Your task to perform on an android device: empty trash in the gmail app Image 0: 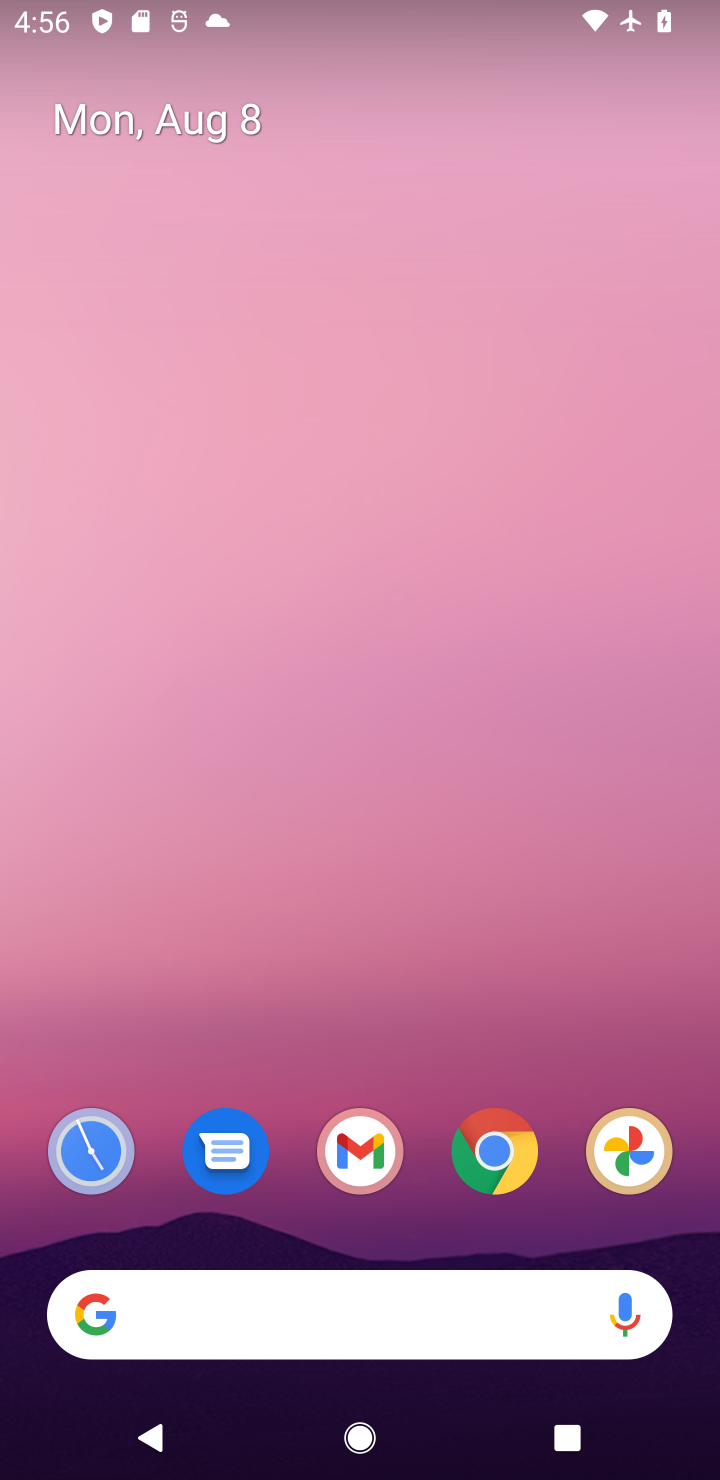
Step 0: click (372, 1152)
Your task to perform on an android device: empty trash in the gmail app Image 1: 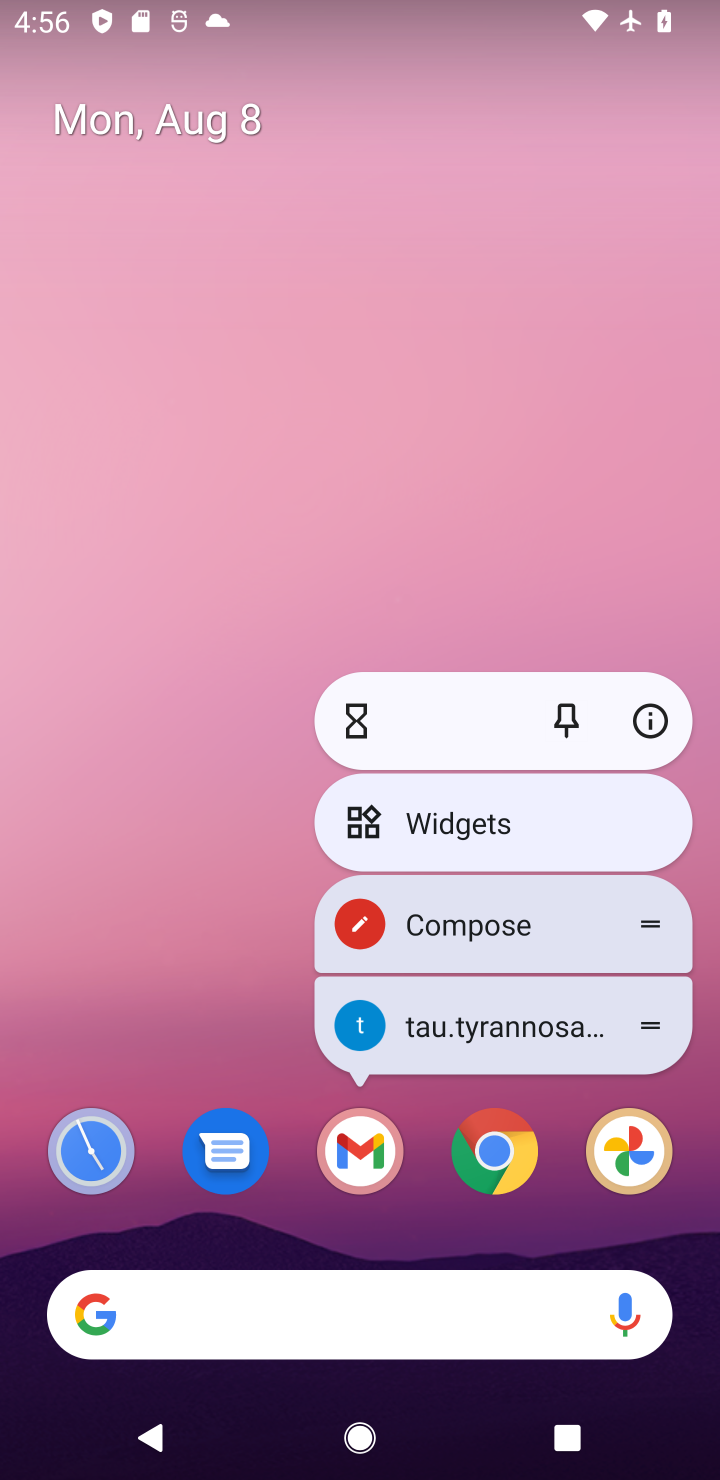
Step 1: click (348, 1151)
Your task to perform on an android device: empty trash in the gmail app Image 2: 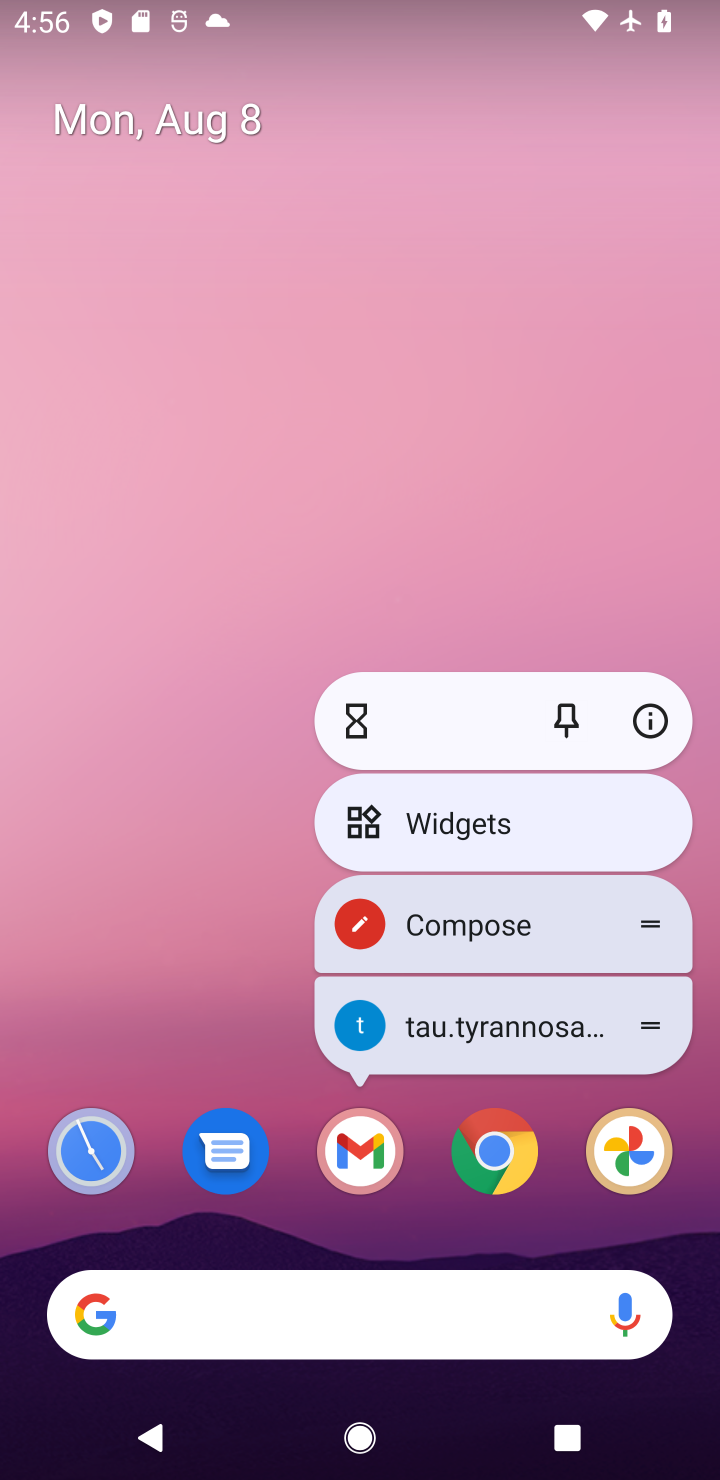
Step 2: click (348, 1151)
Your task to perform on an android device: empty trash in the gmail app Image 3: 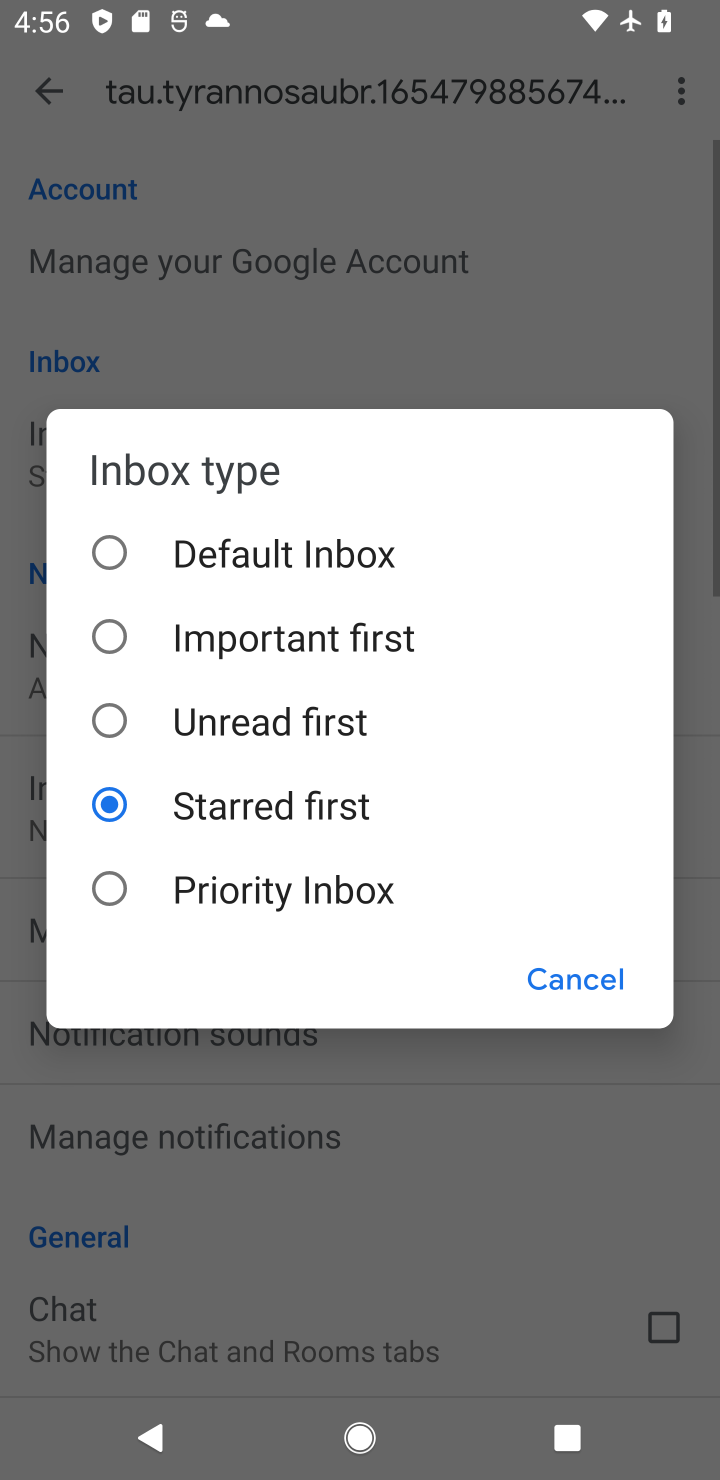
Step 3: click (550, 1014)
Your task to perform on an android device: empty trash in the gmail app Image 4: 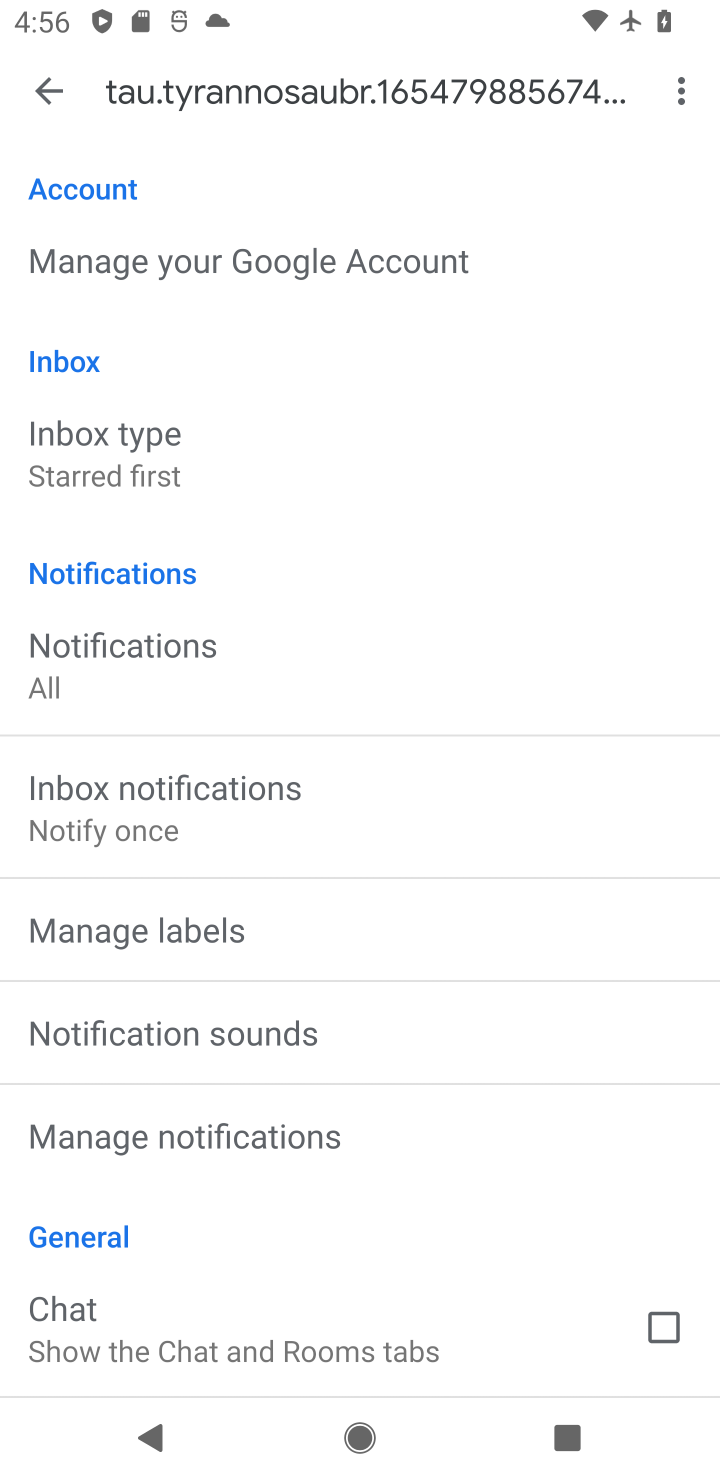
Step 4: click (52, 79)
Your task to perform on an android device: empty trash in the gmail app Image 5: 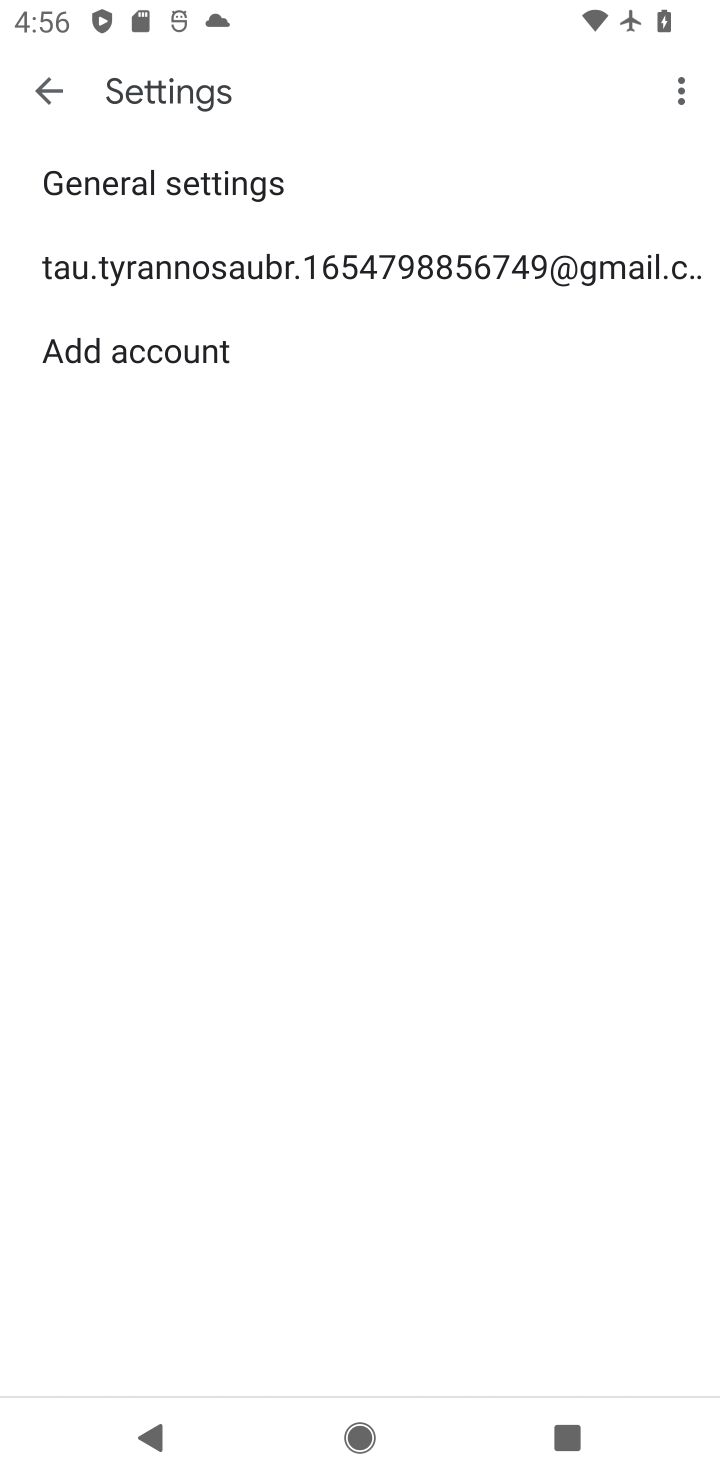
Step 5: click (52, 79)
Your task to perform on an android device: empty trash in the gmail app Image 6: 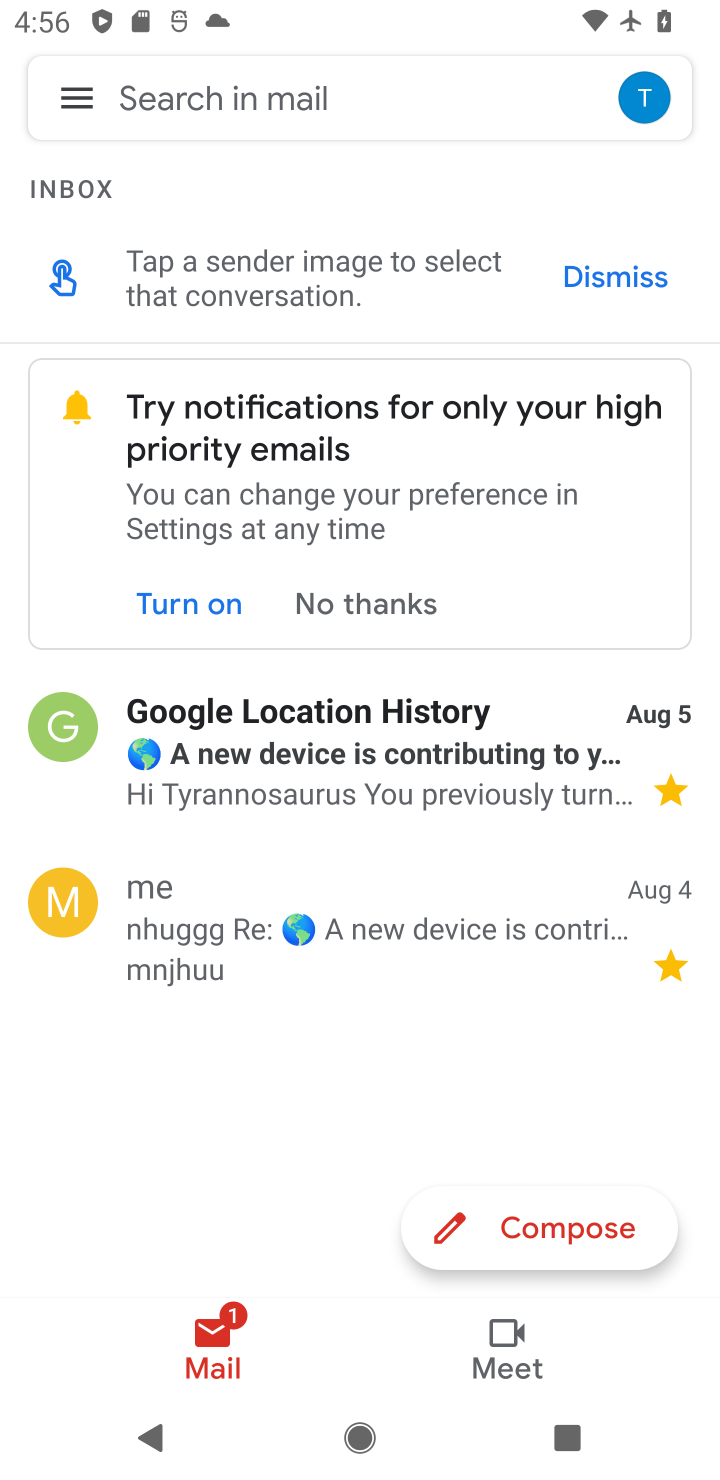
Step 6: click (66, 86)
Your task to perform on an android device: empty trash in the gmail app Image 7: 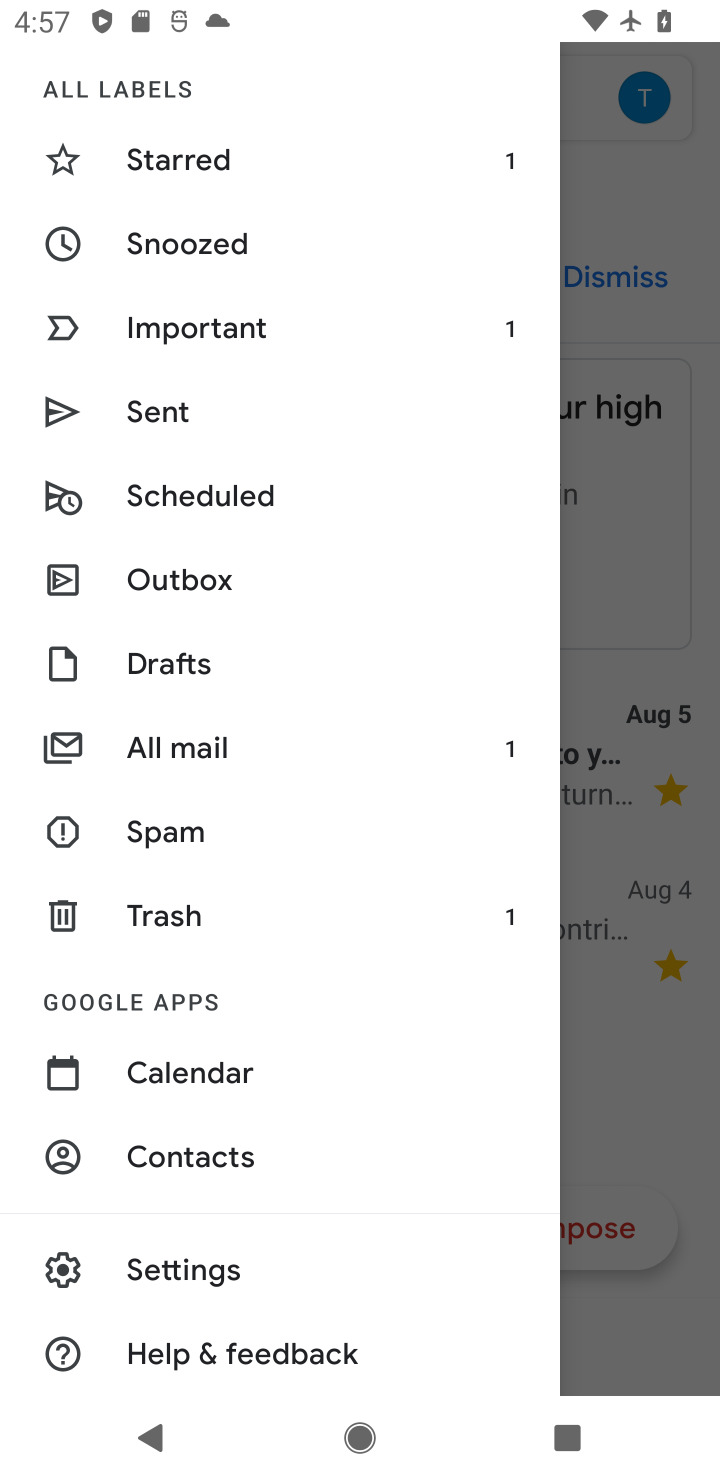
Step 7: click (163, 941)
Your task to perform on an android device: empty trash in the gmail app Image 8: 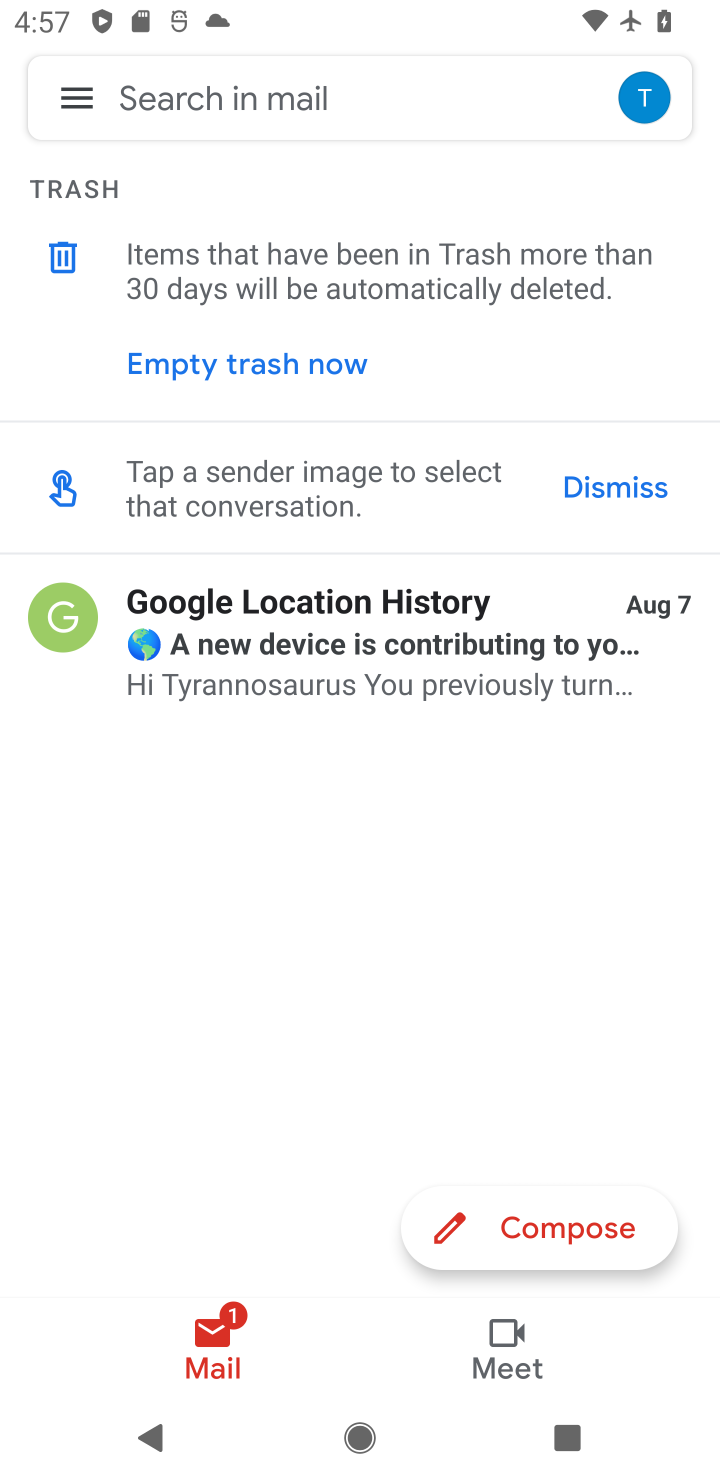
Step 8: click (295, 354)
Your task to perform on an android device: empty trash in the gmail app Image 9: 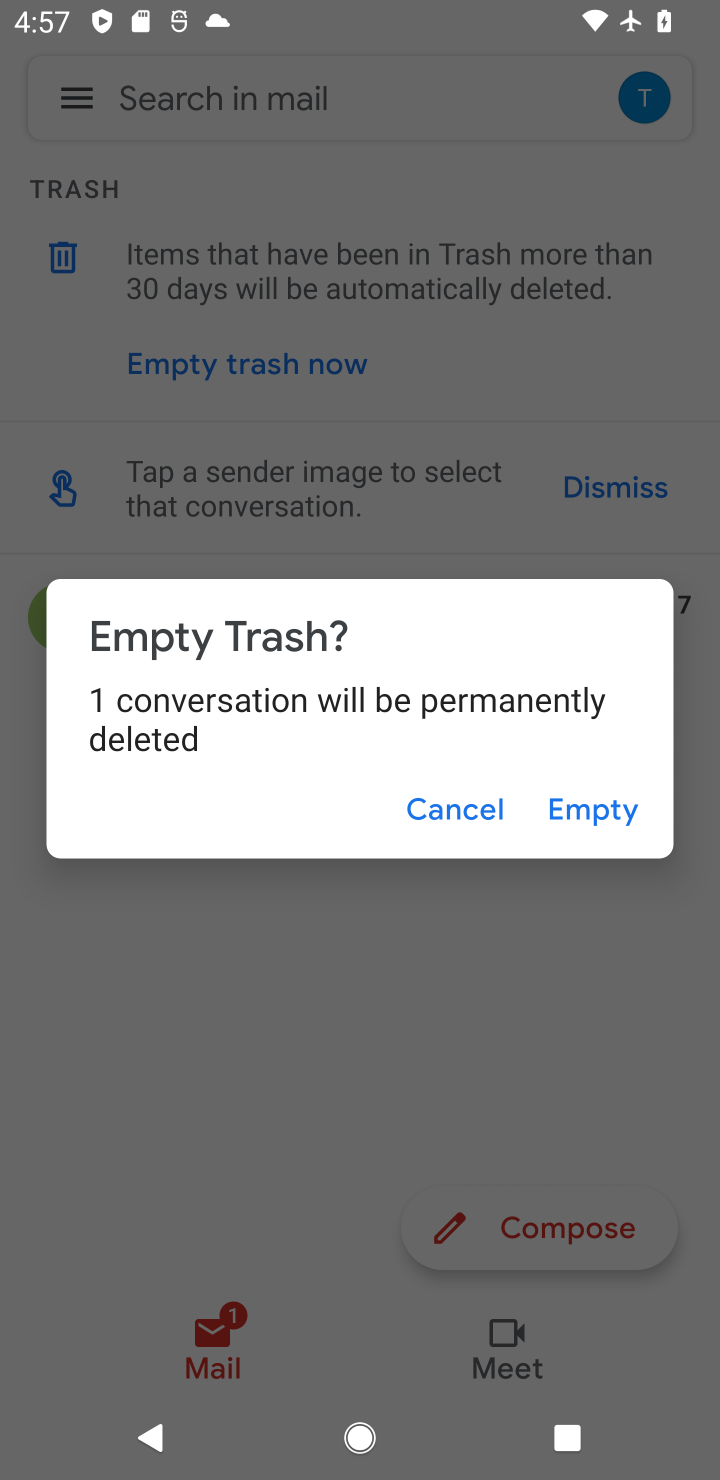
Step 9: click (600, 830)
Your task to perform on an android device: empty trash in the gmail app Image 10: 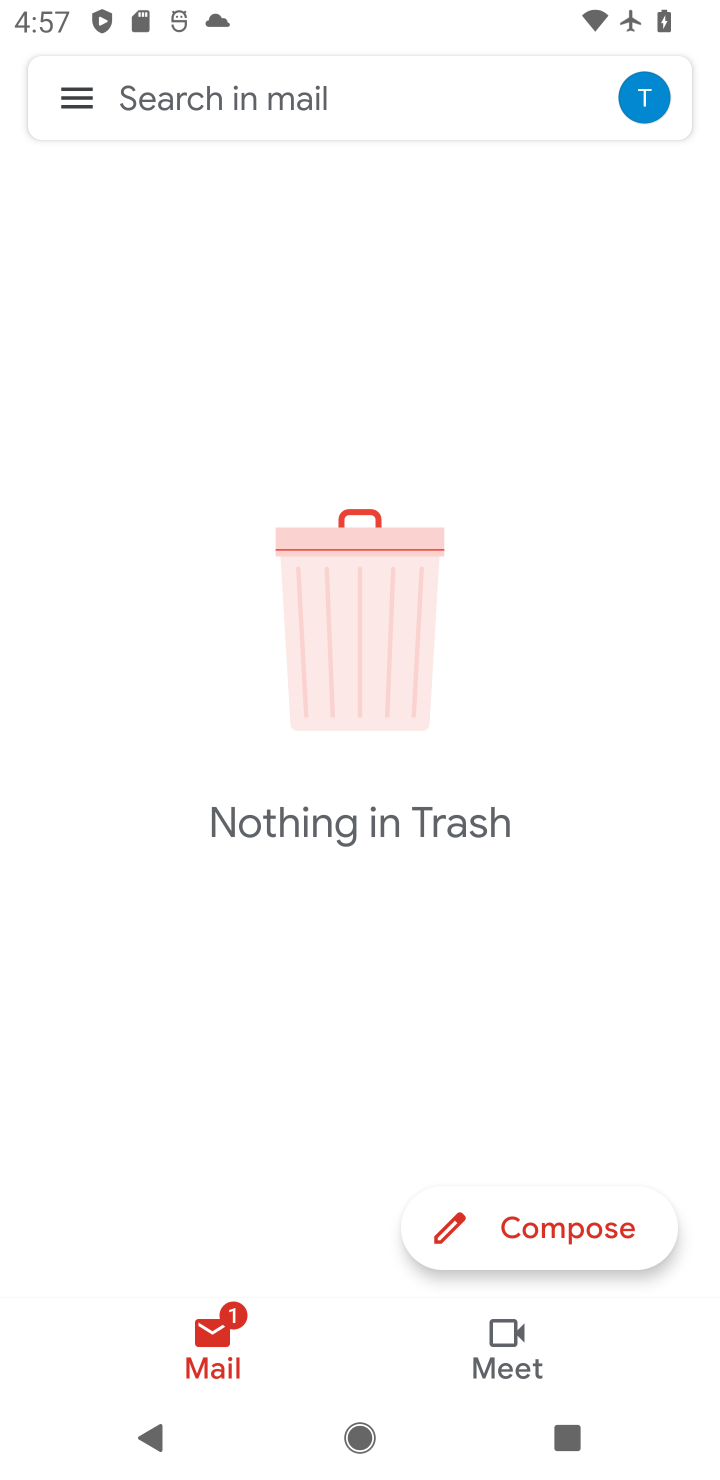
Step 10: task complete